Your task to perform on an android device: turn off notifications in google photos Image 0: 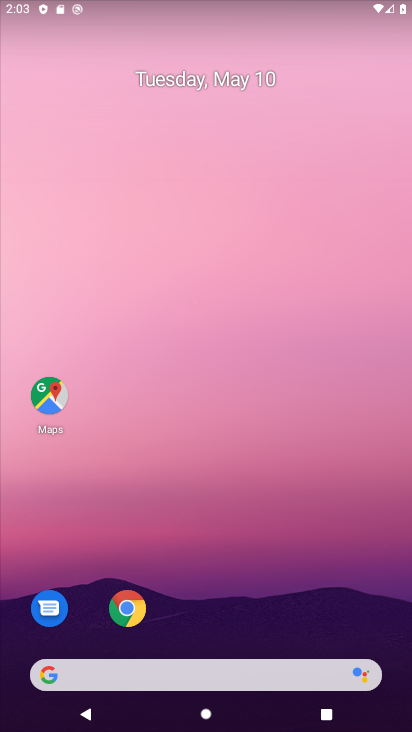
Step 0: drag from (401, 645) to (353, 155)
Your task to perform on an android device: turn off notifications in google photos Image 1: 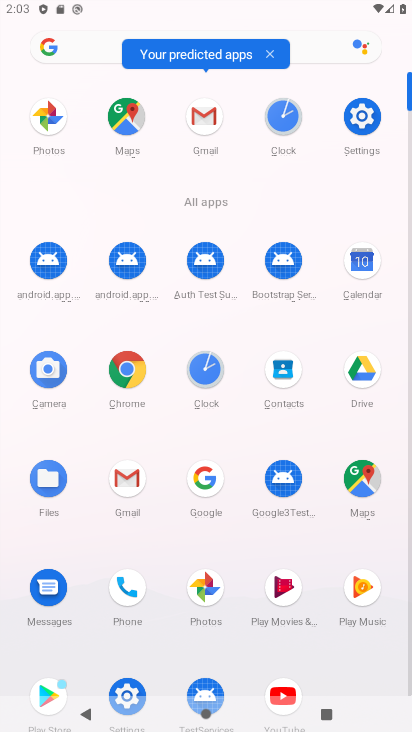
Step 1: click (203, 589)
Your task to perform on an android device: turn off notifications in google photos Image 2: 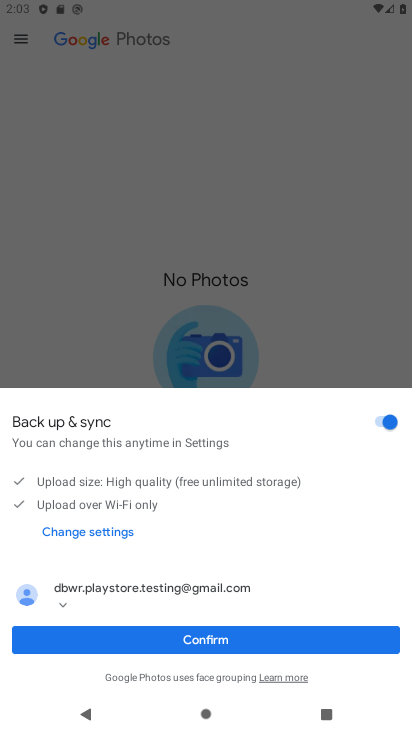
Step 2: click (194, 640)
Your task to perform on an android device: turn off notifications in google photos Image 3: 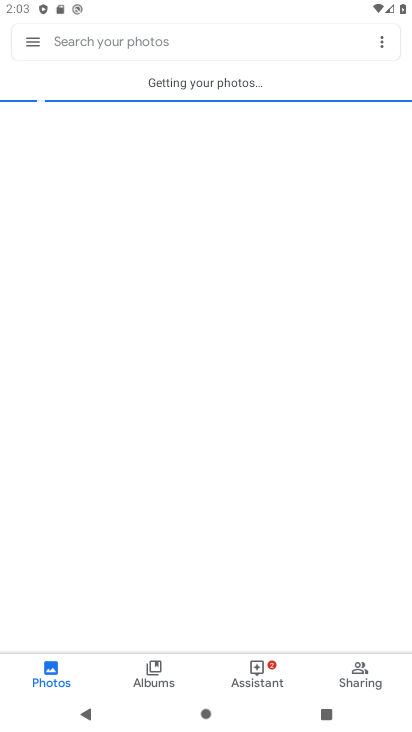
Step 3: click (30, 37)
Your task to perform on an android device: turn off notifications in google photos Image 4: 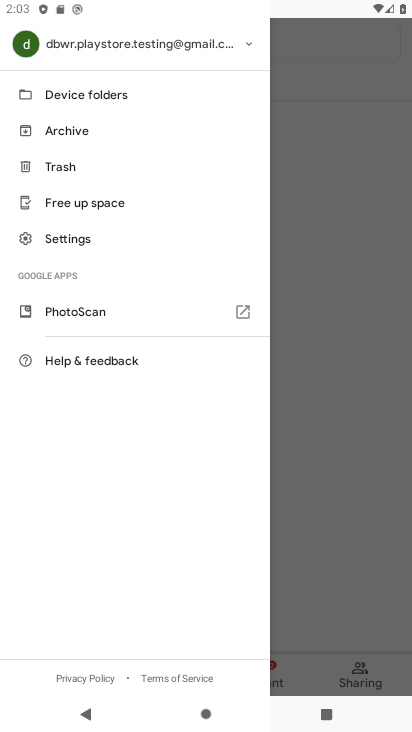
Step 4: click (57, 237)
Your task to perform on an android device: turn off notifications in google photos Image 5: 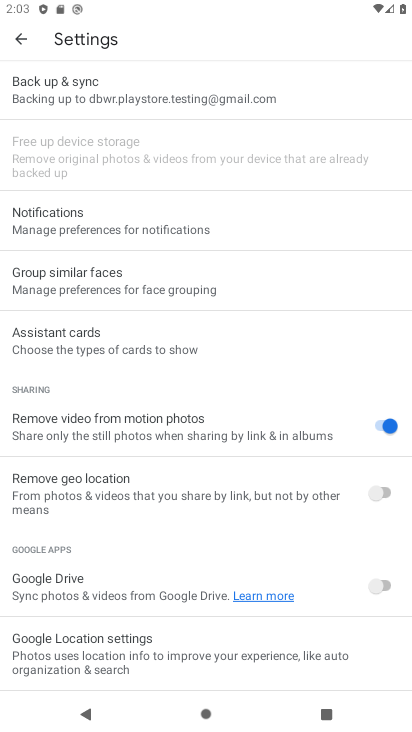
Step 5: click (66, 223)
Your task to perform on an android device: turn off notifications in google photos Image 6: 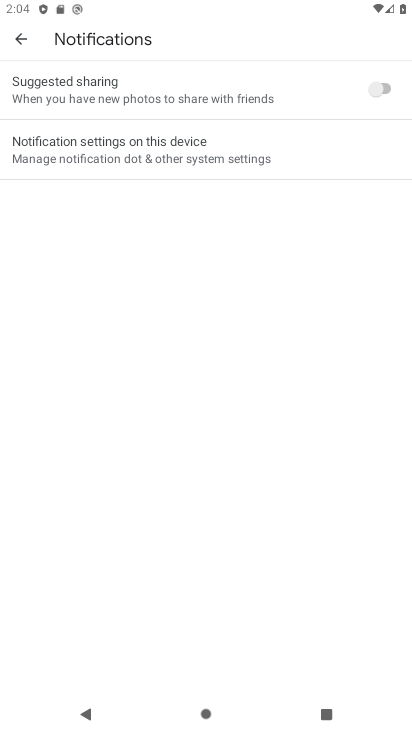
Step 6: click (97, 148)
Your task to perform on an android device: turn off notifications in google photos Image 7: 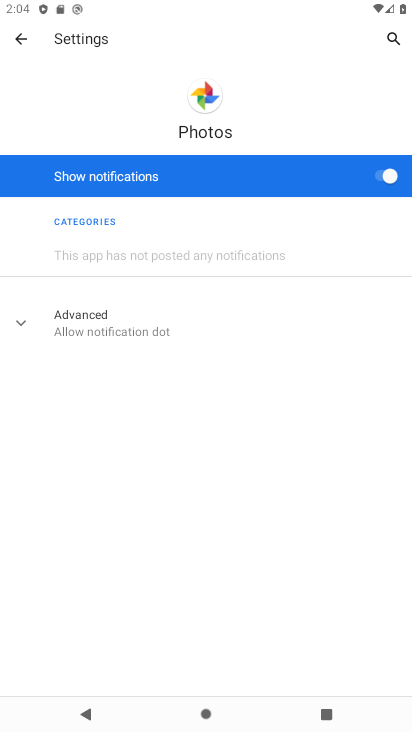
Step 7: click (375, 178)
Your task to perform on an android device: turn off notifications in google photos Image 8: 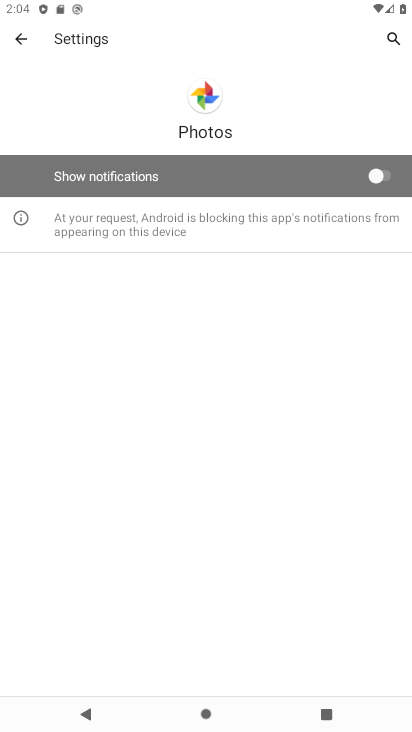
Step 8: task complete